Your task to perform on an android device: turn off smart reply in the gmail app Image 0: 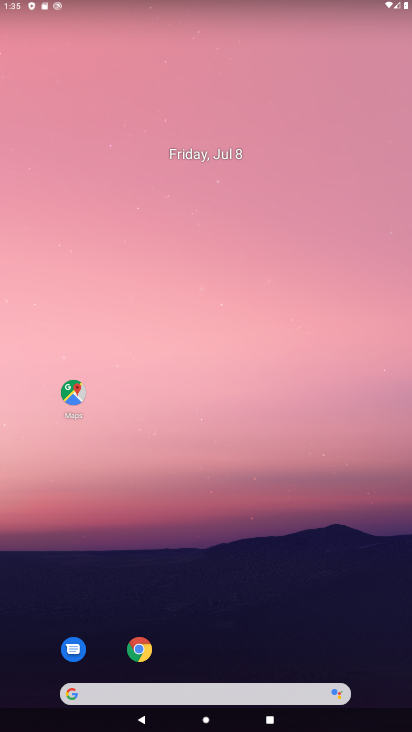
Step 0: drag from (296, 639) to (255, 95)
Your task to perform on an android device: turn off smart reply in the gmail app Image 1: 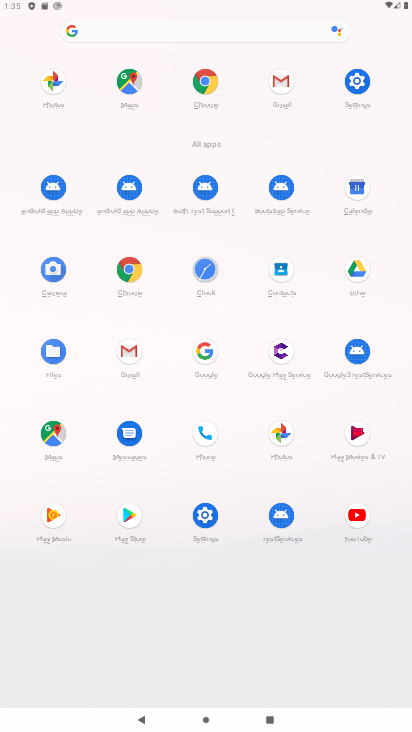
Step 1: click (279, 81)
Your task to perform on an android device: turn off smart reply in the gmail app Image 2: 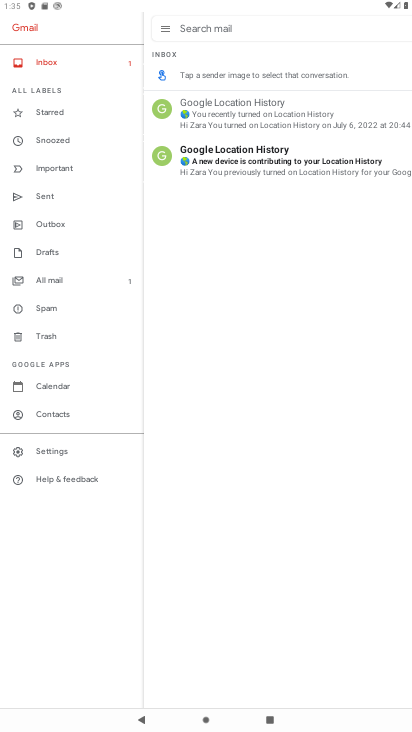
Step 2: click (73, 449)
Your task to perform on an android device: turn off smart reply in the gmail app Image 3: 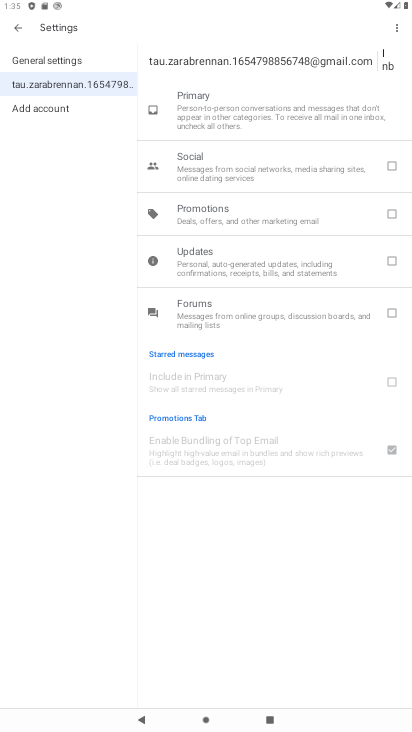
Step 3: click (95, 84)
Your task to perform on an android device: turn off smart reply in the gmail app Image 4: 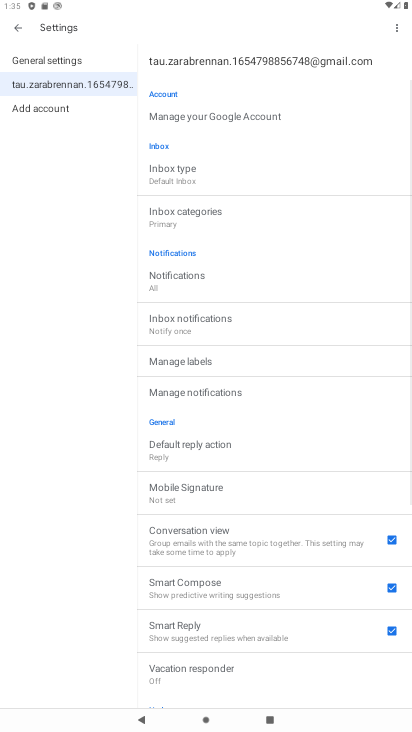
Step 4: drag from (263, 546) to (292, 43)
Your task to perform on an android device: turn off smart reply in the gmail app Image 5: 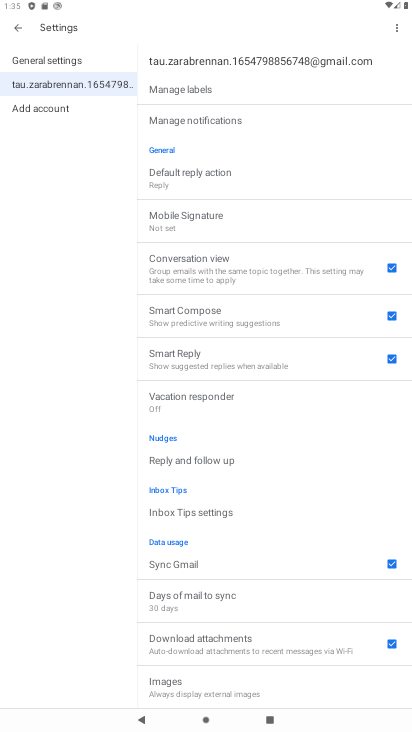
Step 5: click (396, 356)
Your task to perform on an android device: turn off smart reply in the gmail app Image 6: 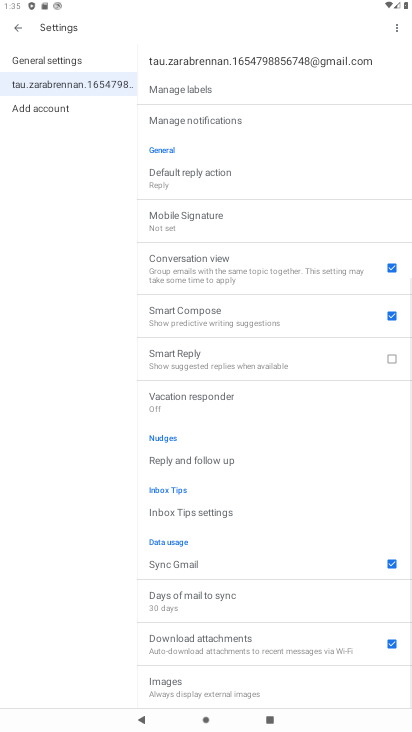
Step 6: task complete